Your task to perform on an android device: Go to Reddit.com Image 0: 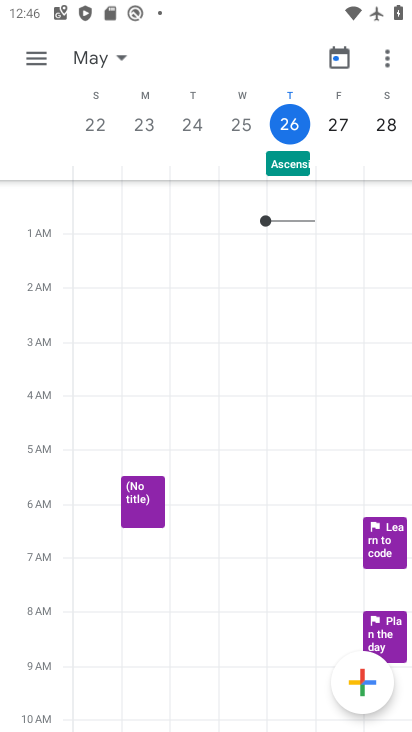
Step 0: press home button
Your task to perform on an android device: Go to Reddit.com Image 1: 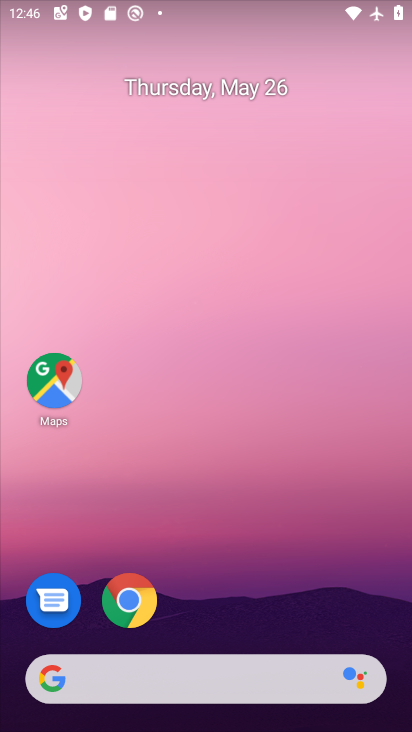
Step 1: click (131, 597)
Your task to perform on an android device: Go to Reddit.com Image 2: 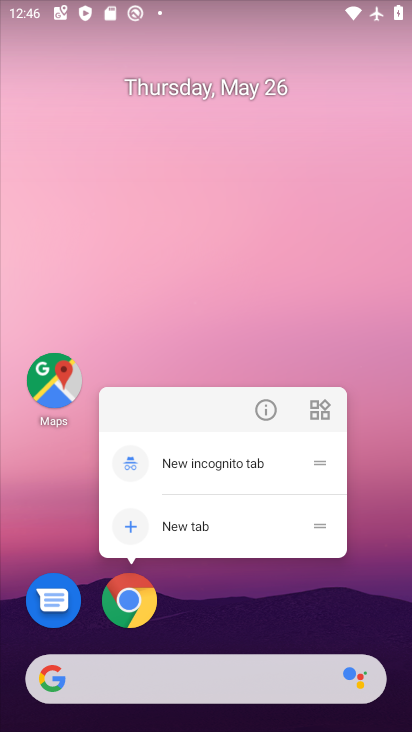
Step 2: click (207, 637)
Your task to perform on an android device: Go to Reddit.com Image 3: 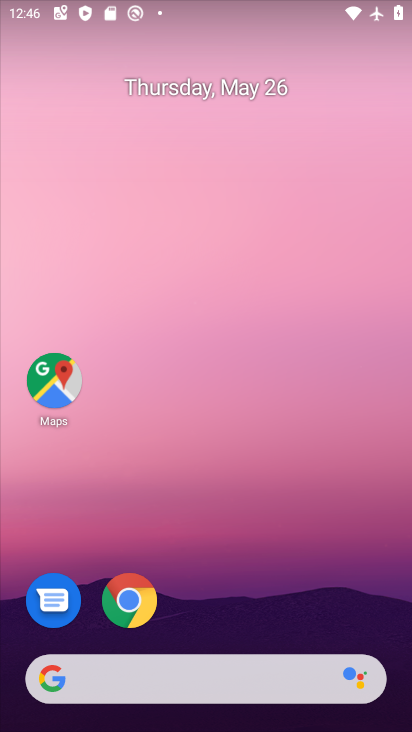
Step 3: drag from (208, 637) to (314, 56)
Your task to perform on an android device: Go to Reddit.com Image 4: 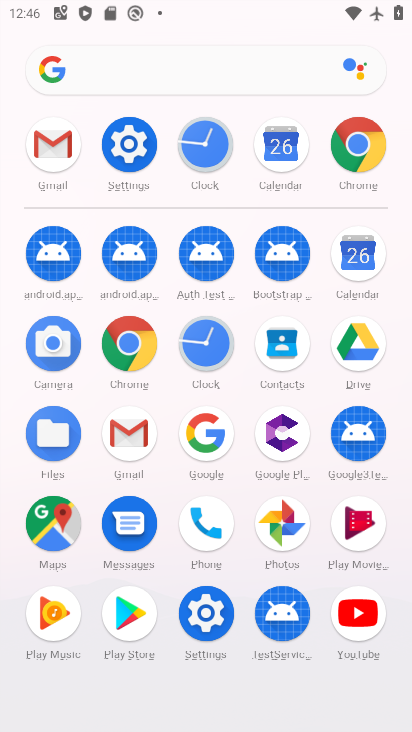
Step 4: click (133, 354)
Your task to perform on an android device: Go to Reddit.com Image 5: 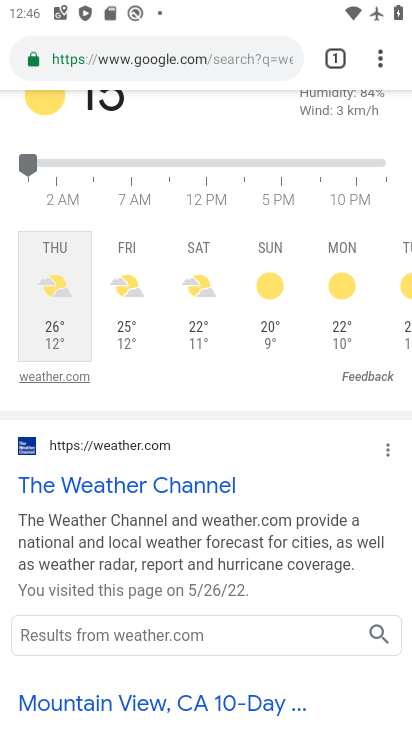
Step 5: click (207, 52)
Your task to perform on an android device: Go to Reddit.com Image 6: 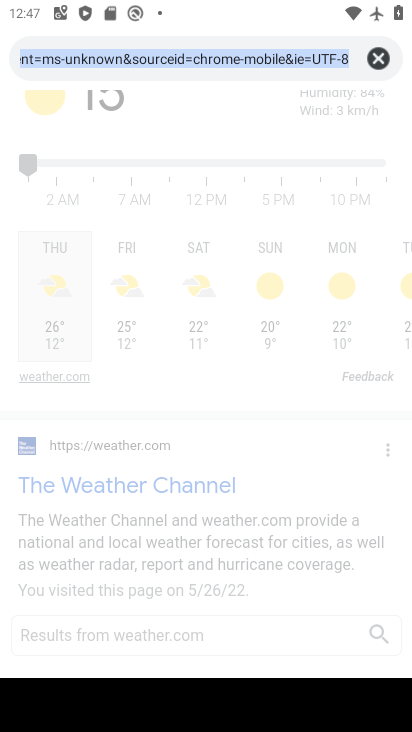
Step 6: type "reddit.com"
Your task to perform on an android device: Go to Reddit.com Image 7: 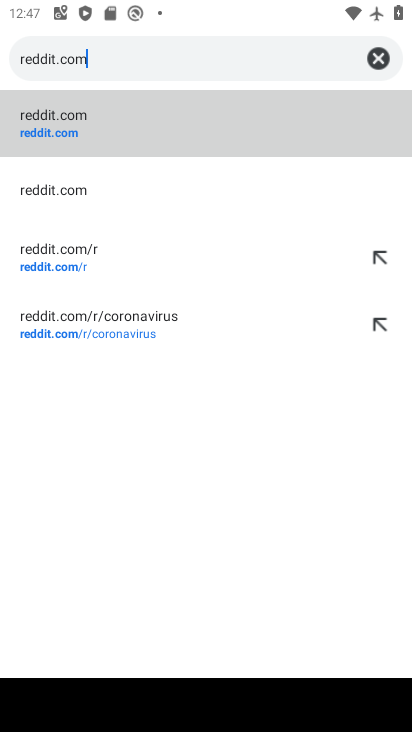
Step 7: click (29, 134)
Your task to perform on an android device: Go to Reddit.com Image 8: 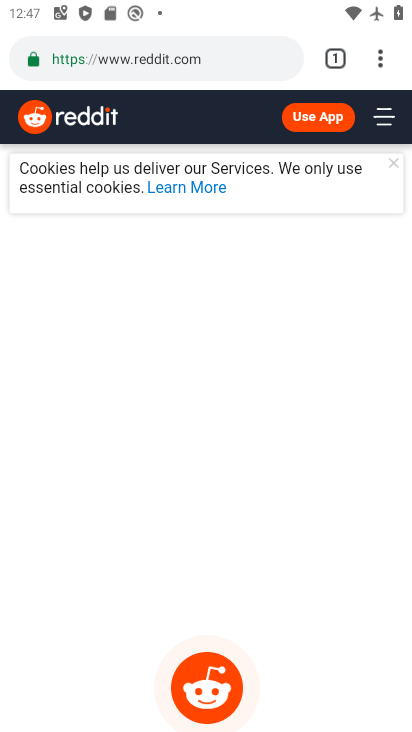
Step 8: task complete